Your task to perform on an android device: check battery use Image 0: 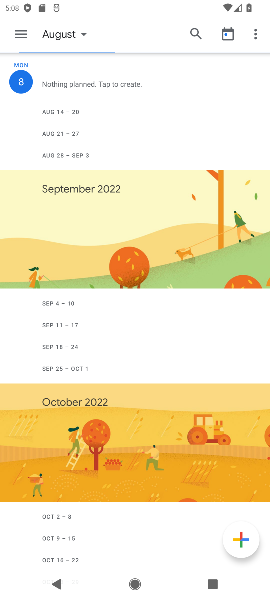
Step 0: press home button
Your task to perform on an android device: check battery use Image 1: 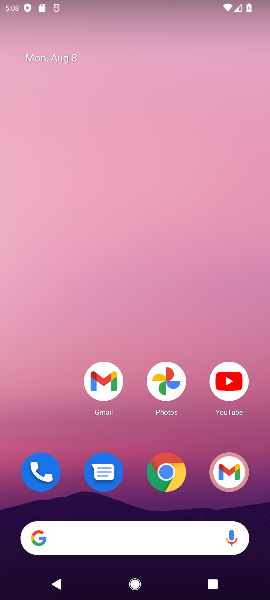
Step 1: drag from (51, 425) to (87, 69)
Your task to perform on an android device: check battery use Image 2: 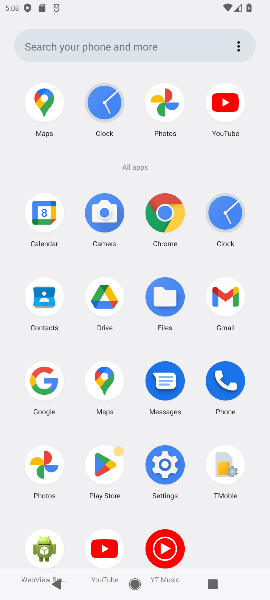
Step 2: click (168, 467)
Your task to perform on an android device: check battery use Image 3: 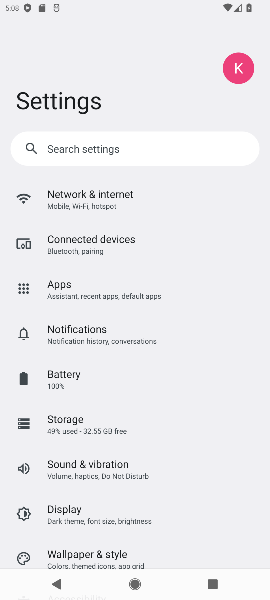
Step 3: click (110, 383)
Your task to perform on an android device: check battery use Image 4: 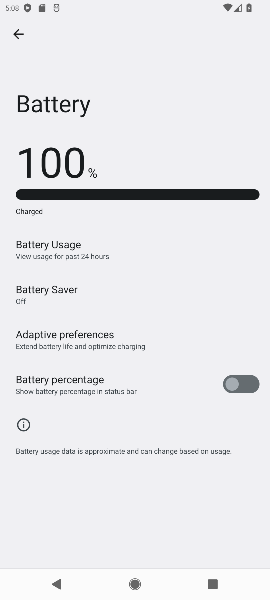
Step 4: task complete